Your task to perform on an android device: manage bookmarks in the chrome app Image 0: 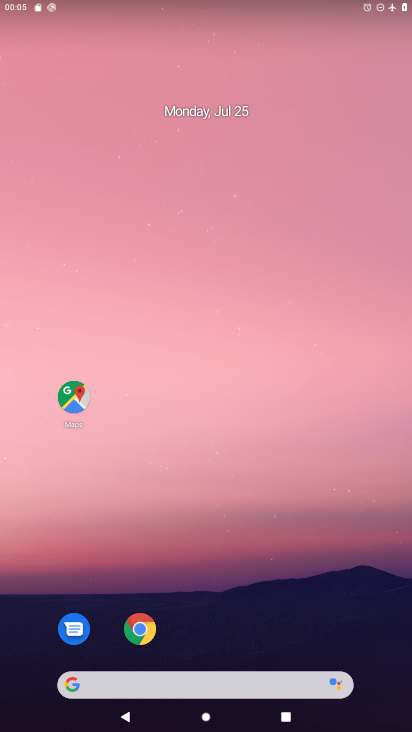
Step 0: drag from (167, 650) to (227, 154)
Your task to perform on an android device: manage bookmarks in the chrome app Image 1: 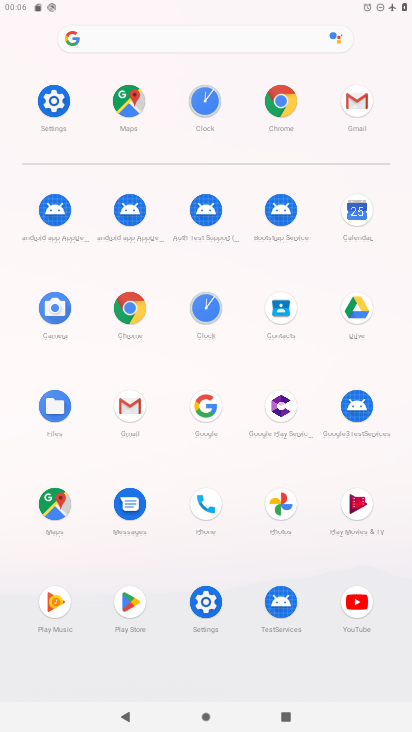
Step 1: click (129, 309)
Your task to perform on an android device: manage bookmarks in the chrome app Image 2: 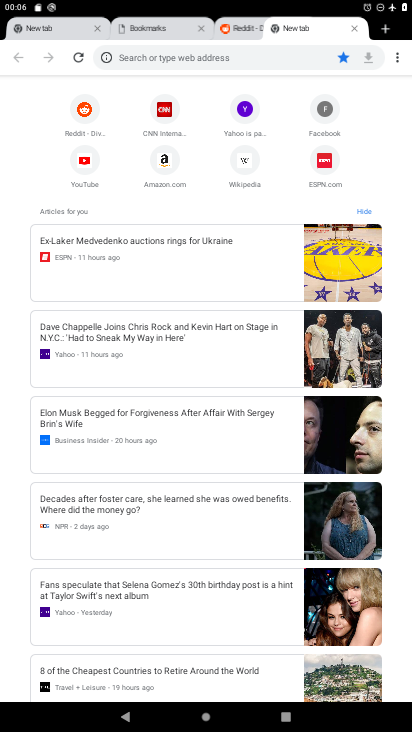
Step 2: drag from (397, 54) to (306, 112)
Your task to perform on an android device: manage bookmarks in the chrome app Image 3: 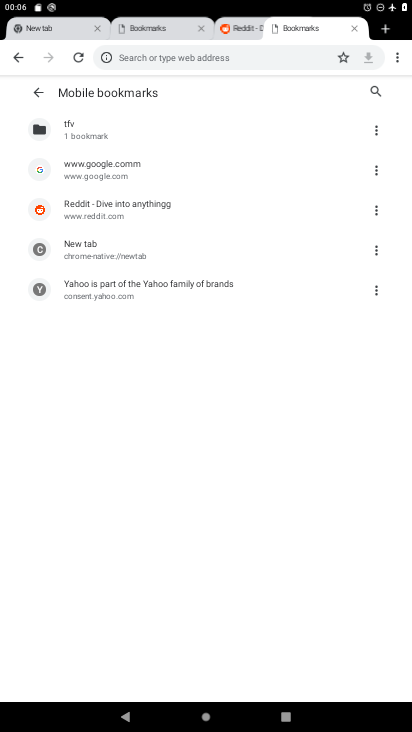
Step 3: drag from (205, 499) to (208, 290)
Your task to perform on an android device: manage bookmarks in the chrome app Image 4: 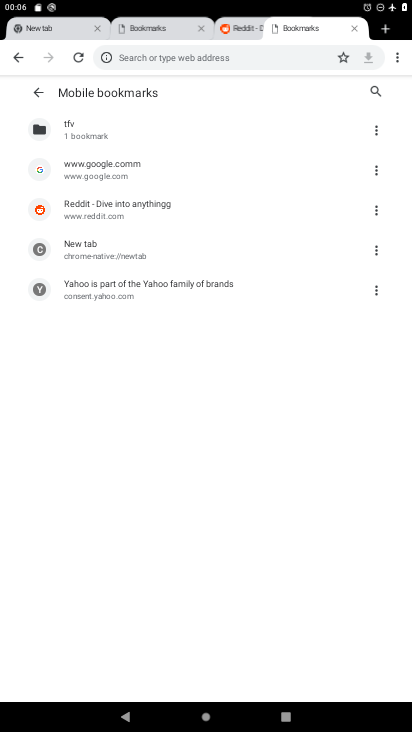
Step 4: click (372, 206)
Your task to perform on an android device: manage bookmarks in the chrome app Image 5: 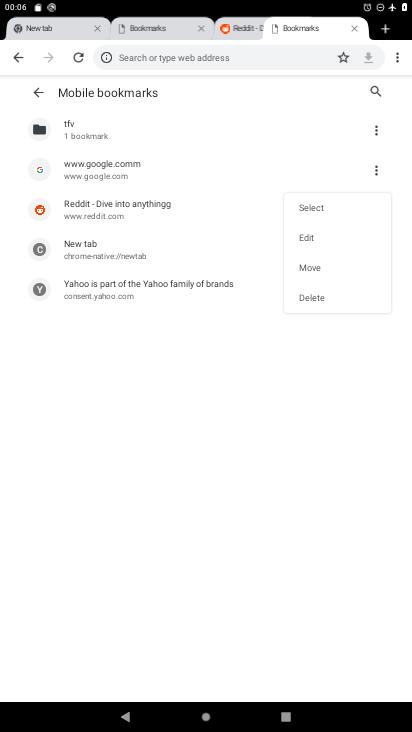
Step 5: click (312, 269)
Your task to perform on an android device: manage bookmarks in the chrome app Image 6: 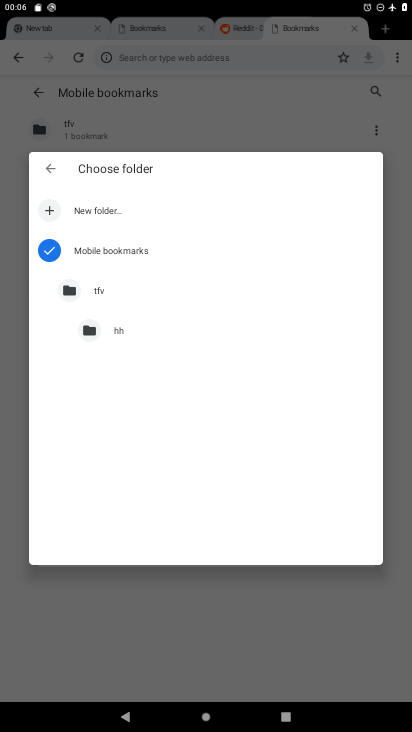
Step 6: task complete